Your task to perform on an android device: check out phone information Image 0: 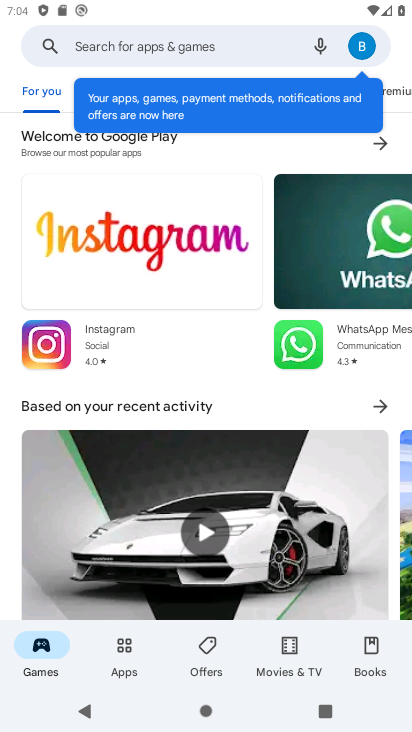
Step 0: drag from (224, 558) to (196, 192)
Your task to perform on an android device: check out phone information Image 1: 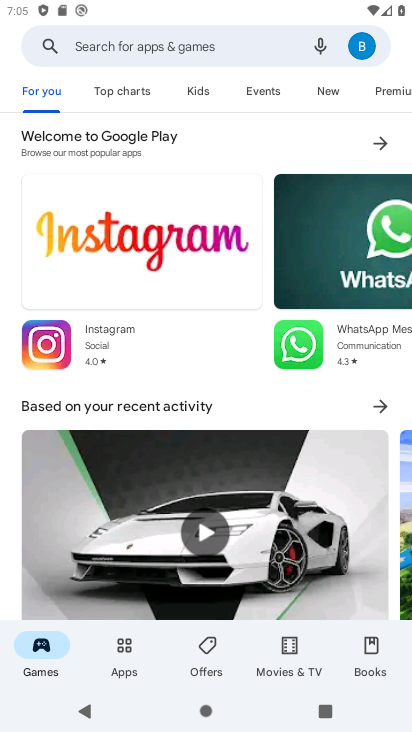
Step 1: press home button
Your task to perform on an android device: check out phone information Image 2: 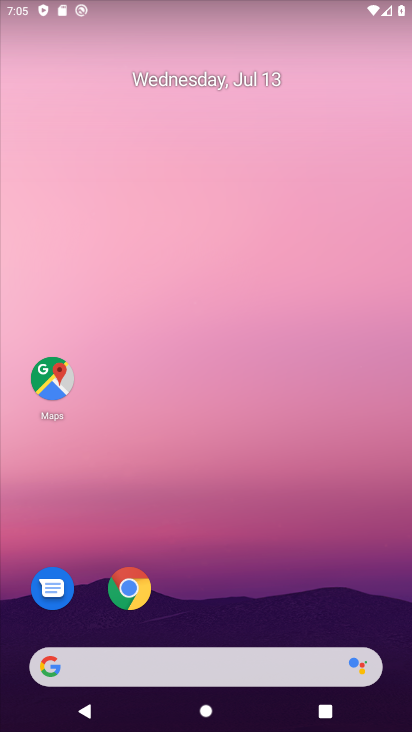
Step 2: drag from (269, 547) to (211, 126)
Your task to perform on an android device: check out phone information Image 3: 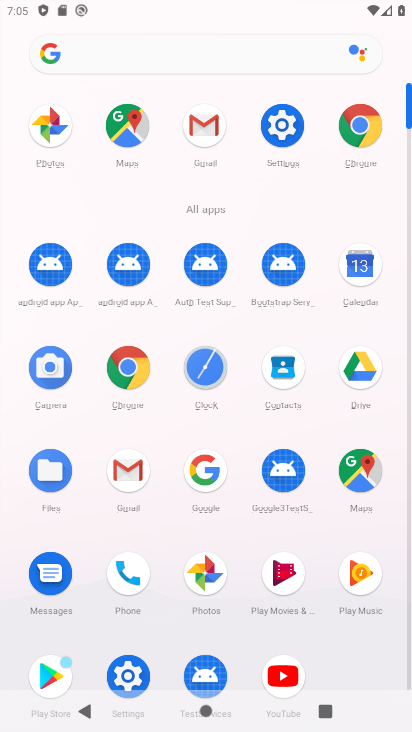
Step 3: click (282, 121)
Your task to perform on an android device: check out phone information Image 4: 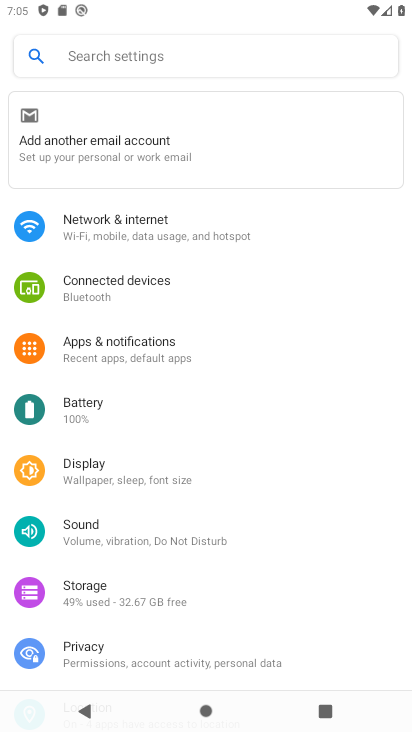
Step 4: drag from (263, 589) to (233, 158)
Your task to perform on an android device: check out phone information Image 5: 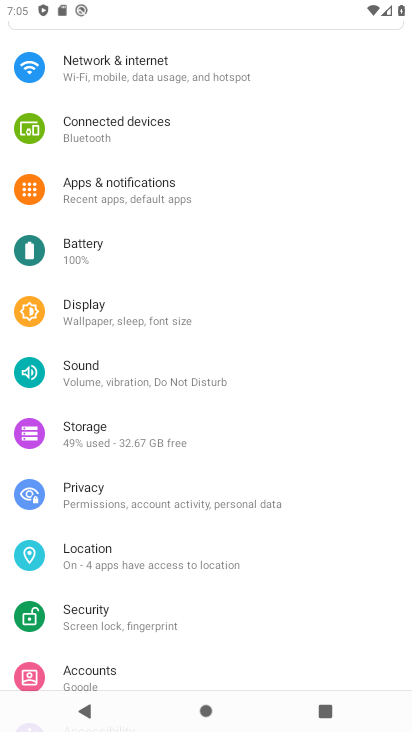
Step 5: drag from (251, 595) to (222, 272)
Your task to perform on an android device: check out phone information Image 6: 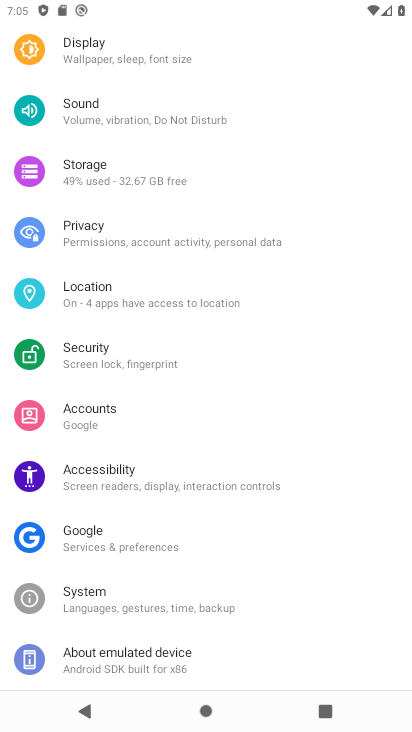
Step 6: click (114, 655)
Your task to perform on an android device: check out phone information Image 7: 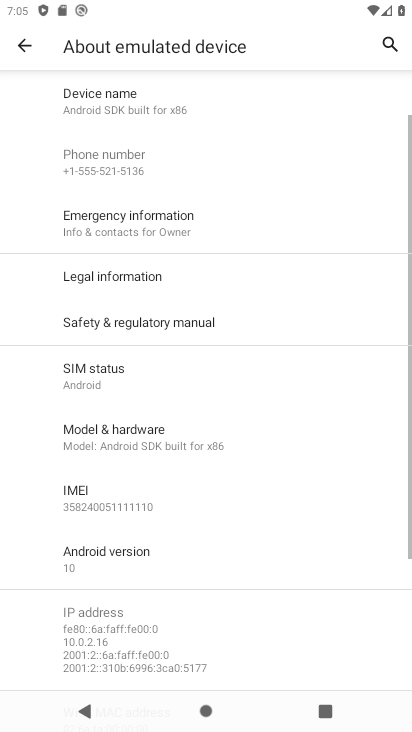
Step 7: task complete